Your task to perform on an android device: change the clock display to show seconds Image 0: 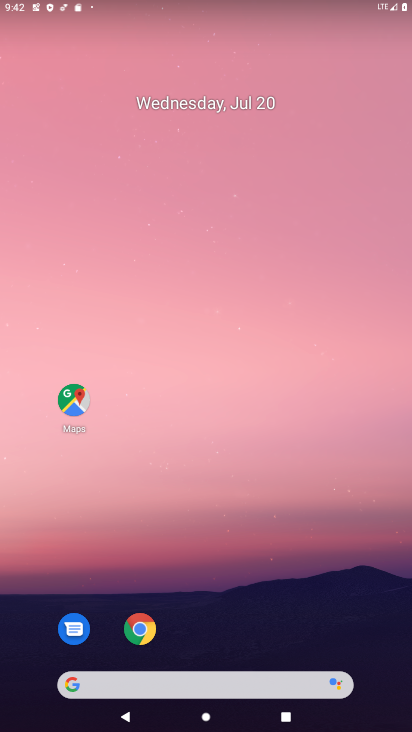
Step 0: click (258, 660)
Your task to perform on an android device: change the clock display to show seconds Image 1: 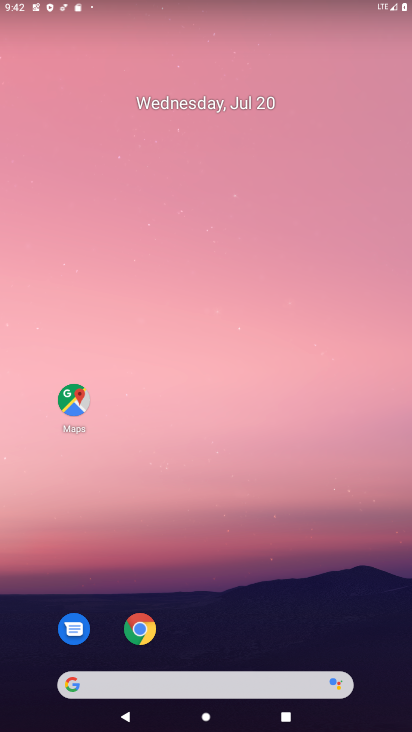
Step 1: drag from (220, 535) to (234, 34)
Your task to perform on an android device: change the clock display to show seconds Image 2: 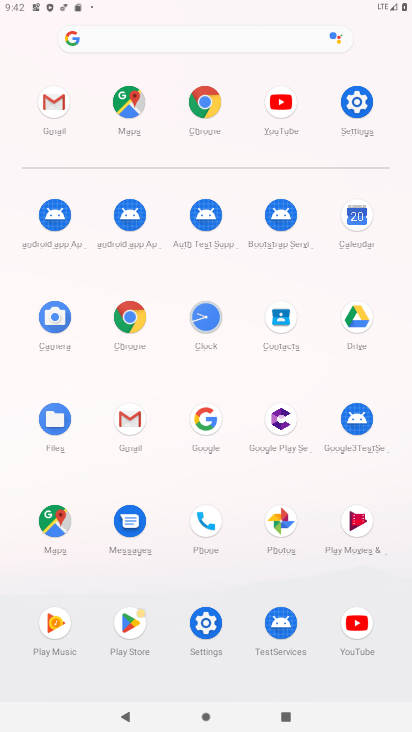
Step 2: click (219, 327)
Your task to perform on an android device: change the clock display to show seconds Image 3: 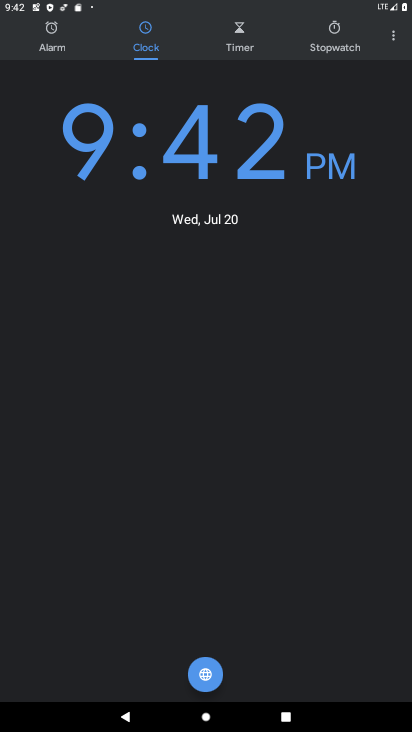
Step 3: click (397, 38)
Your task to perform on an android device: change the clock display to show seconds Image 4: 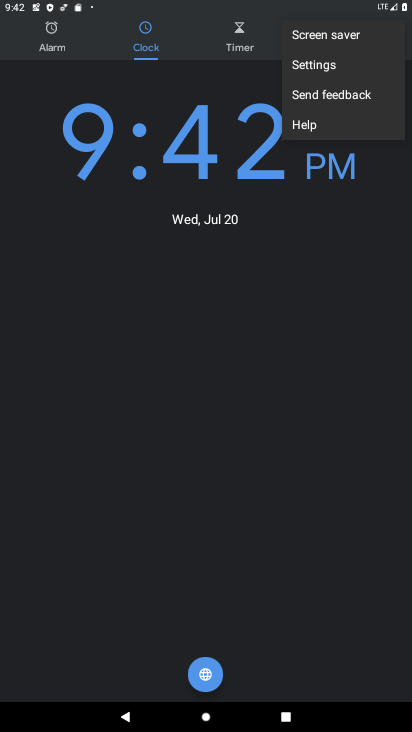
Step 4: click (347, 67)
Your task to perform on an android device: change the clock display to show seconds Image 5: 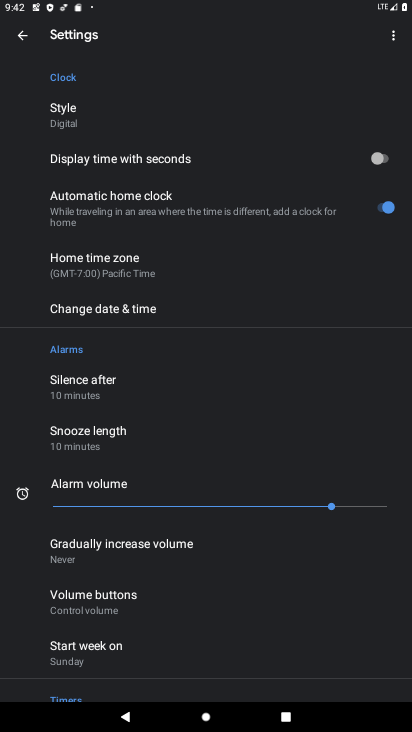
Step 5: click (343, 167)
Your task to perform on an android device: change the clock display to show seconds Image 6: 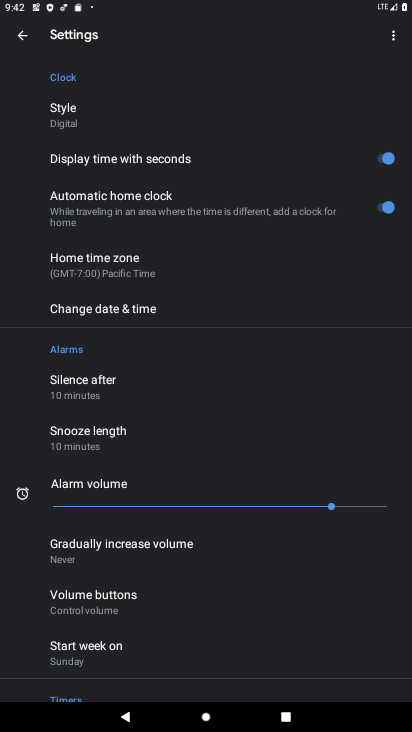
Step 6: task complete